Your task to perform on an android device: open sync settings in chrome Image 0: 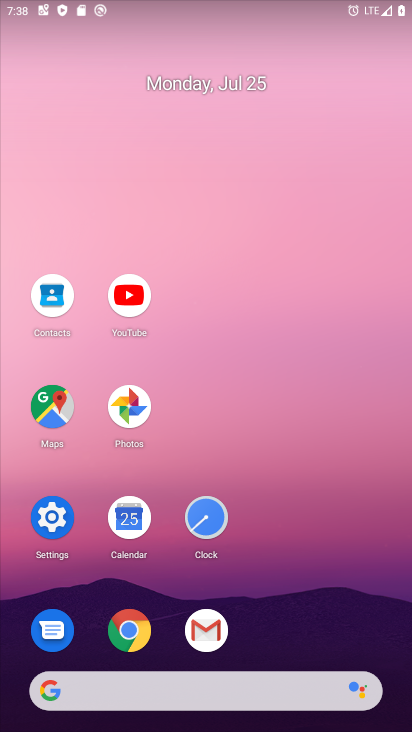
Step 0: click (129, 633)
Your task to perform on an android device: open sync settings in chrome Image 1: 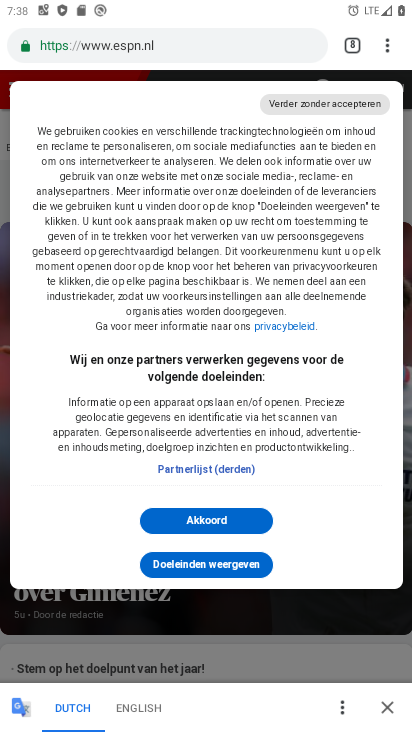
Step 1: click (386, 39)
Your task to perform on an android device: open sync settings in chrome Image 2: 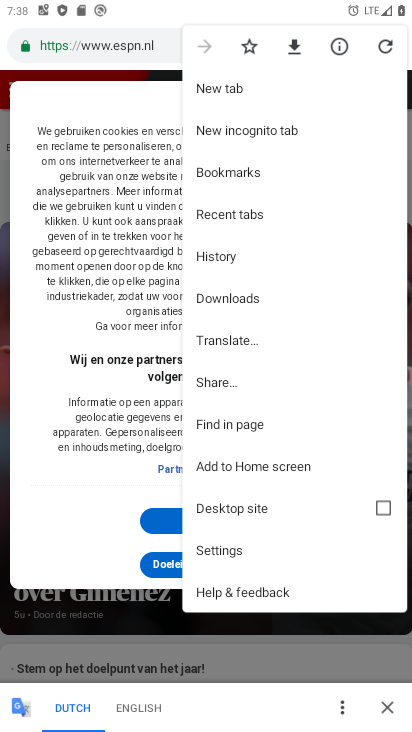
Step 2: click (229, 551)
Your task to perform on an android device: open sync settings in chrome Image 3: 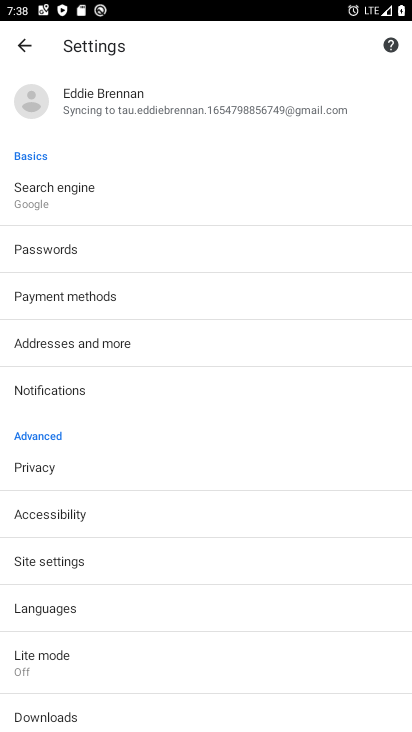
Step 3: click (101, 92)
Your task to perform on an android device: open sync settings in chrome Image 4: 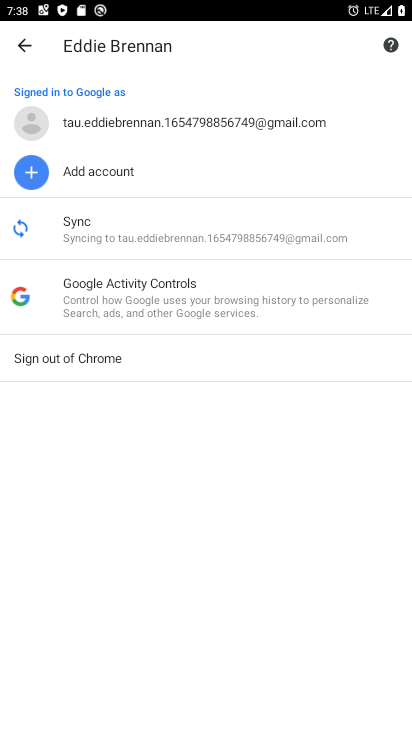
Step 4: task complete